Your task to perform on an android device: set default search engine in the chrome app Image 0: 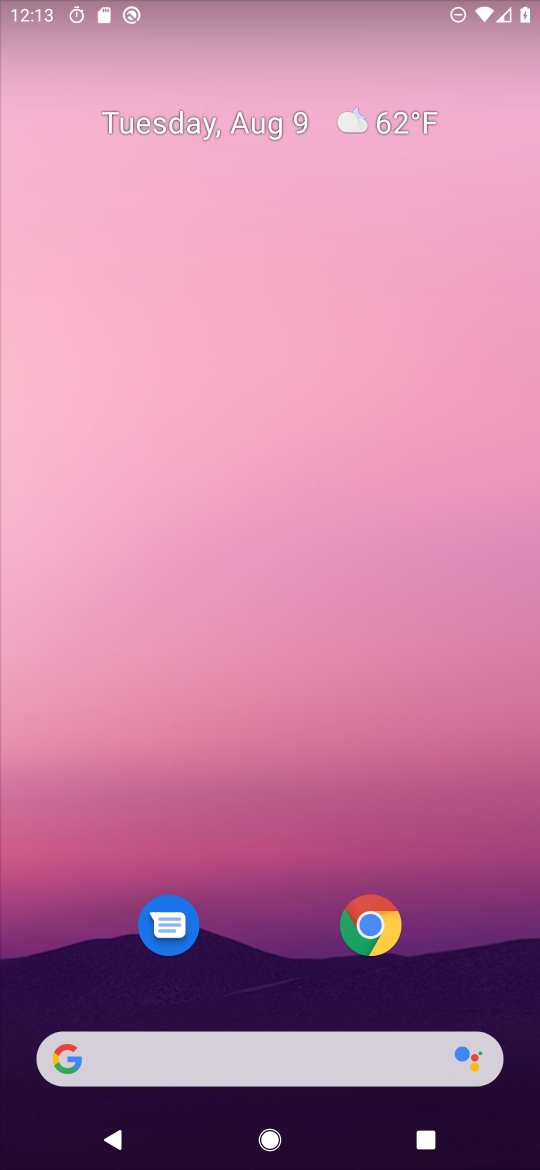
Step 0: drag from (276, 780) to (412, 30)
Your task to perform on an android device: set default search engine in the chrome app Image 1: 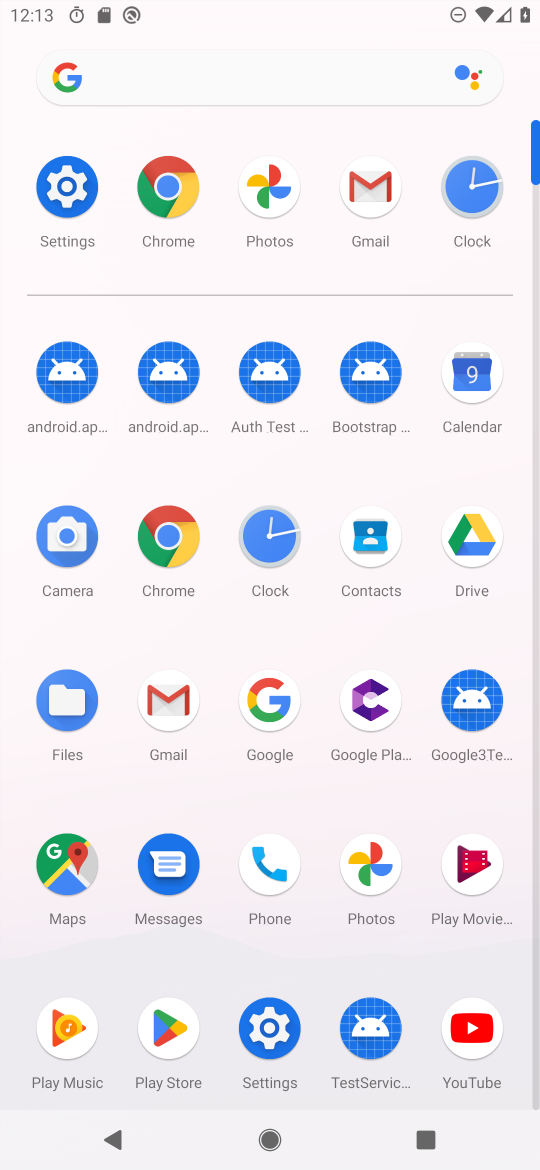
Step 1: click (164, 539)
Your task to perform on an android device: set default search engine in the chrome app Image 2: 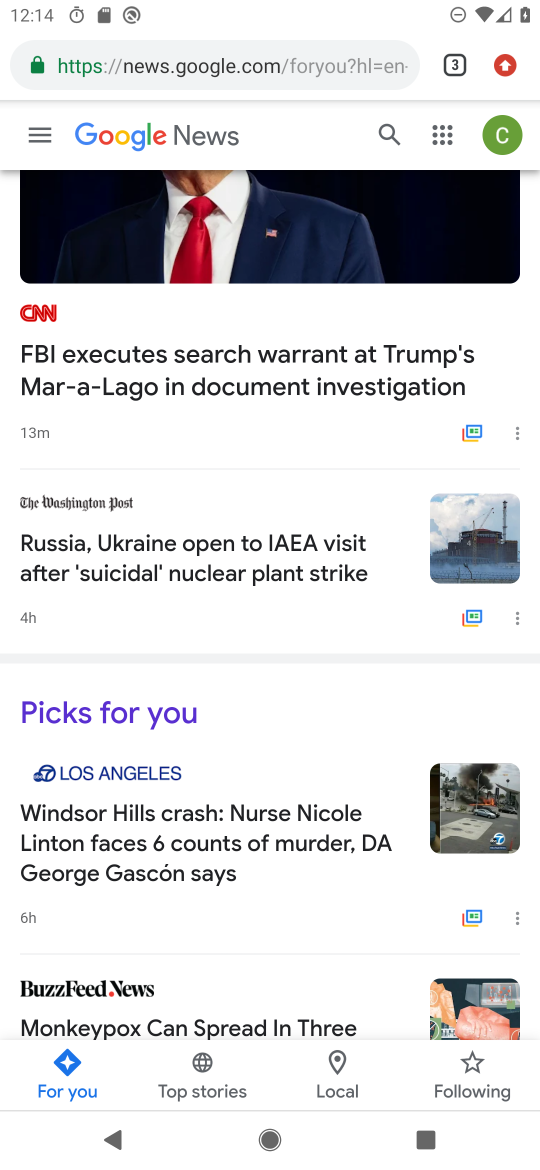
Step 2: drag from (526, 55) to (293, 858)
Your task to perform on an android device: set default search engine in the chrome app Image 3: 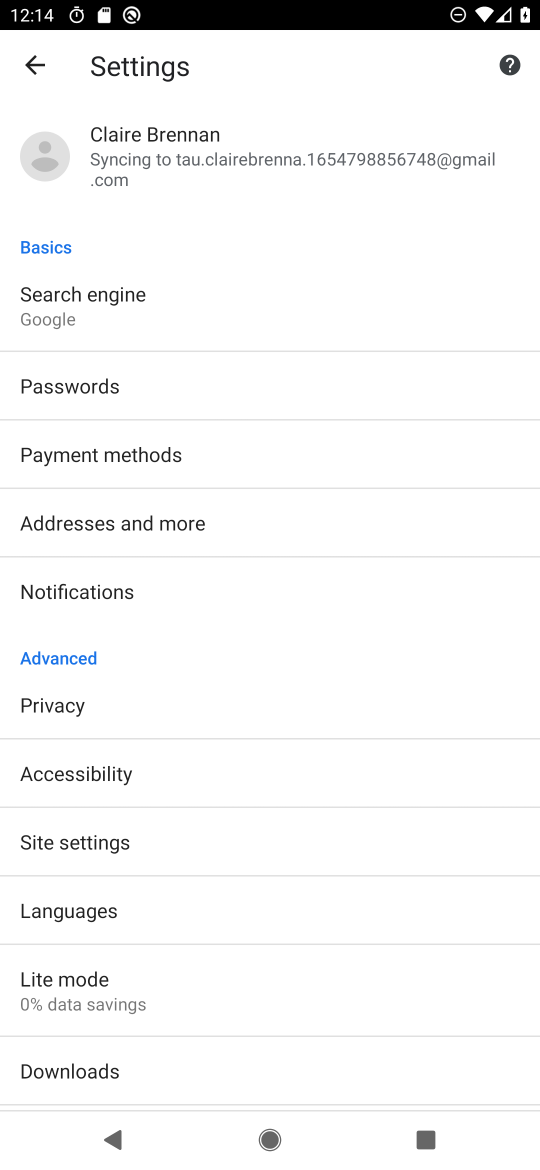
Step 3: click (98, 300)
Your task to perform on an android device: set default search engine in the chrome app Image 4: 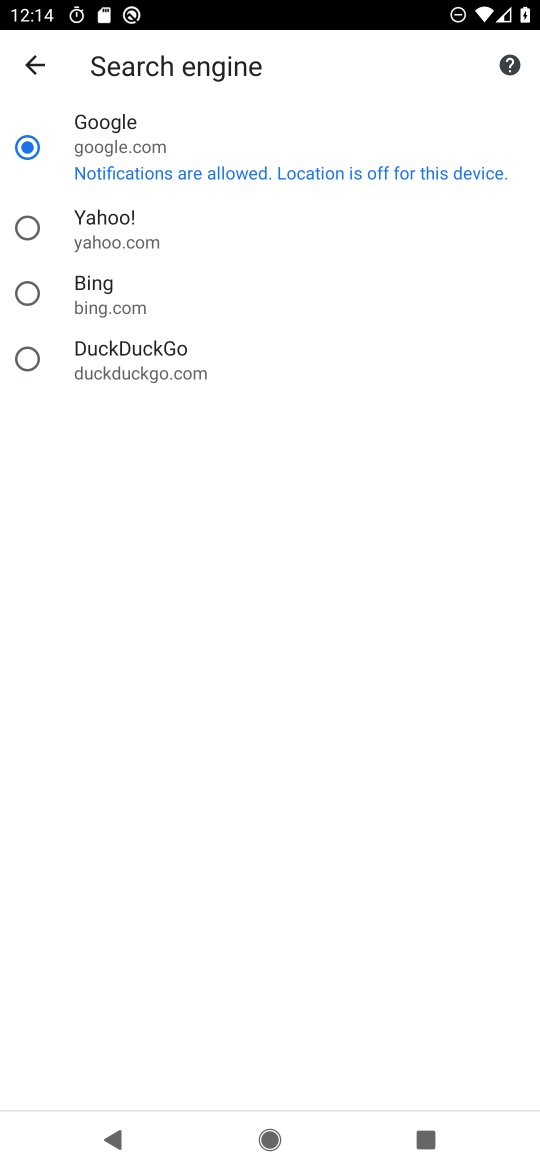
Step 4: task complete